Your task to perform on an android device: change the clock style Image 0: 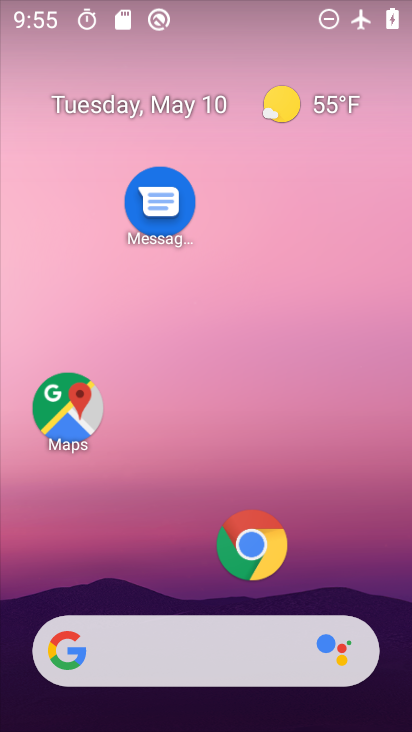
Step 0: drag from (187, 573) to (183, 113)
Your task to perform on an android device: change the clock style Image 1: 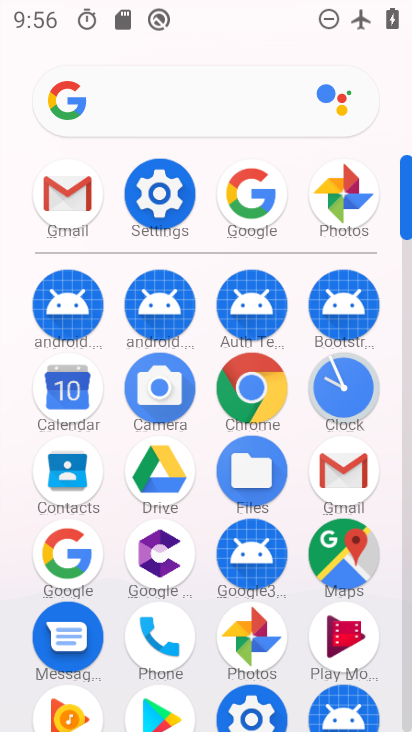
Step 1: click (332, 362)
Your task to perform on an android device: change the clock style Image 2: 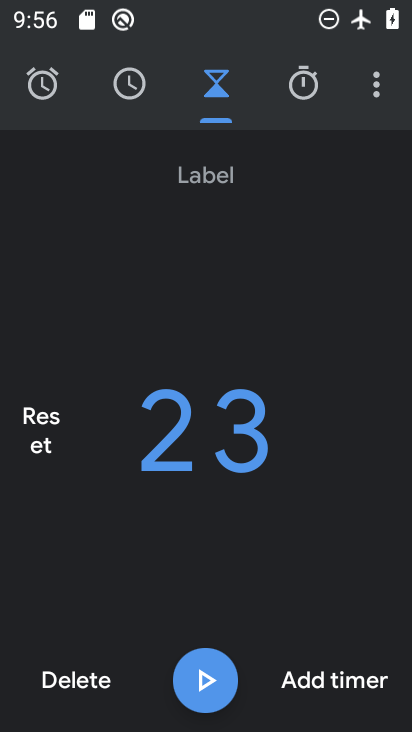
Step 2: click (376, 103)
Your task to perform on an android device: change the clock style Image 3: 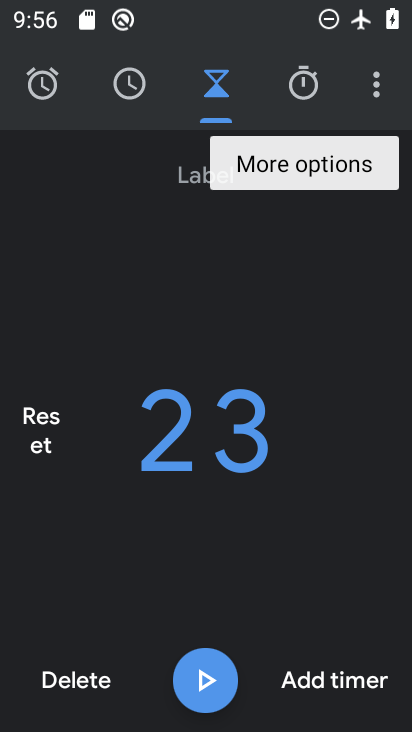
Step 3: click (373, 99)
Your task to perform on an android device: change the clock style Image 4: 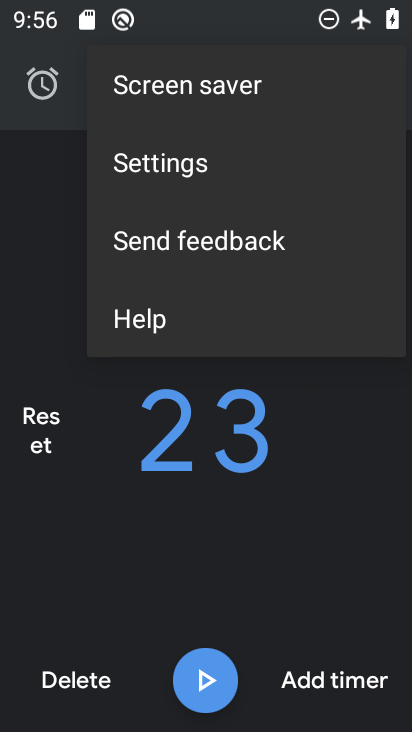
Step 4: click (260, 166)
Your task to perform on an android device: change the clock style Image 5: 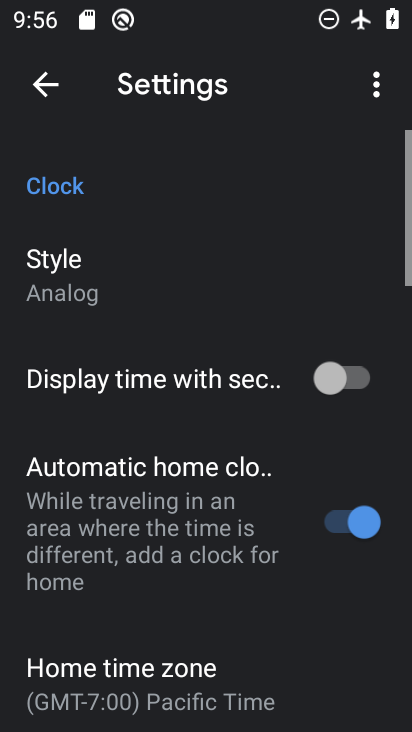
Step 5: click (113, 265)
Your task to perform on an android device: change the clock style Image 6: 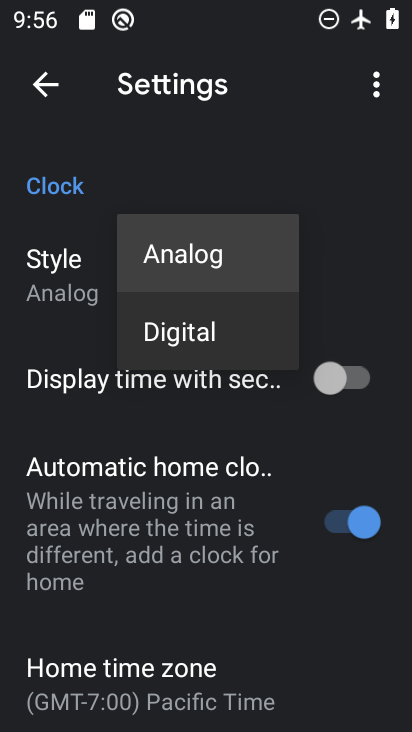
Step 6: click (148, 327)
Your task to perform on an android device: change the clock style Image 7: 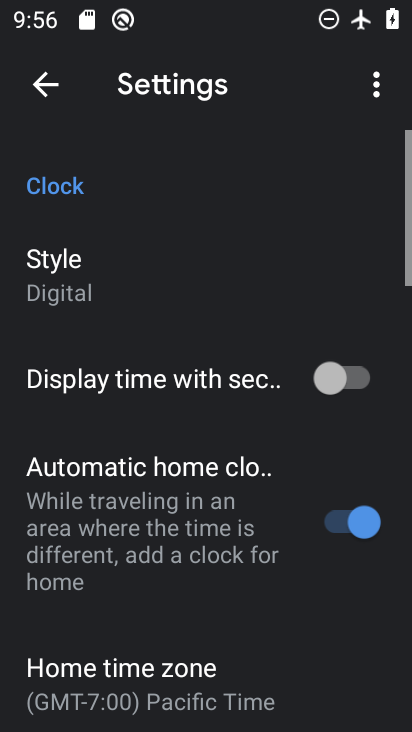
Step 7: task complete